Your task to perform on an android device: check google app version Image 0: 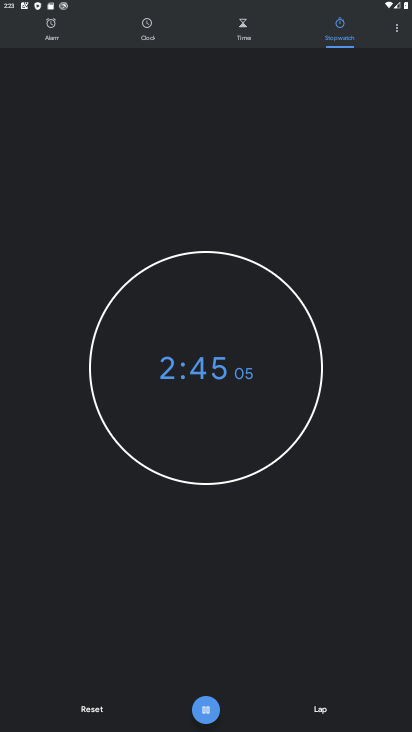
Step 0: press home button
Your task to perform on an android device: check google app version Image 1: 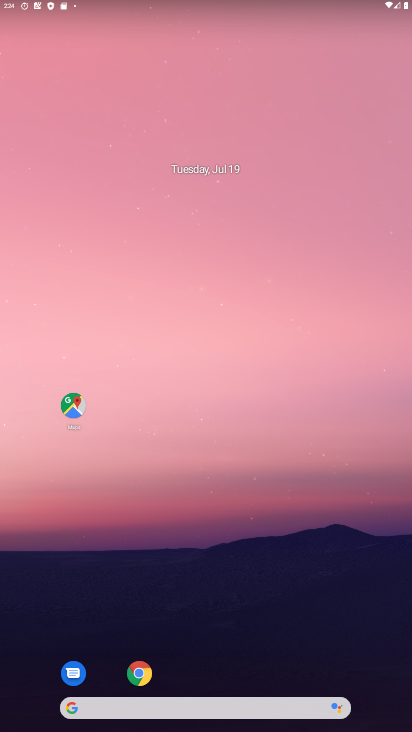
Step 1: click (69, 707)
Your task to perform on an android device: check google app version Image 2: 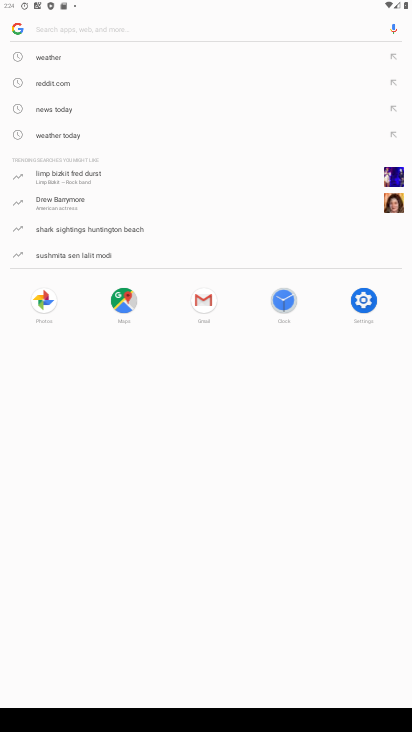
Step 2: click (16, 25)
Your task to perform on an android device: check google app version Image 3: 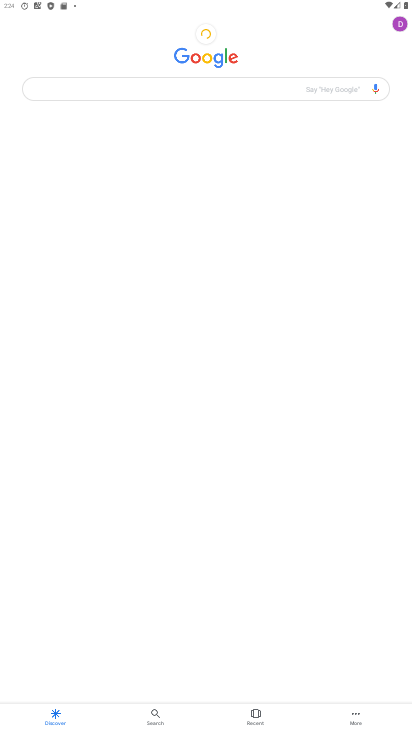
Step 3: click (357, 714)
Your task to perform on an android device: check google app version Image 4: 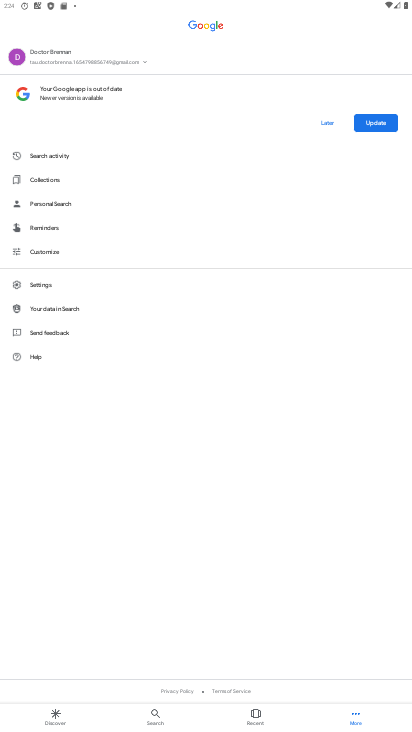
Step 4: click (47, 286)
Your task to perform on an android device: check google app version Image 5: 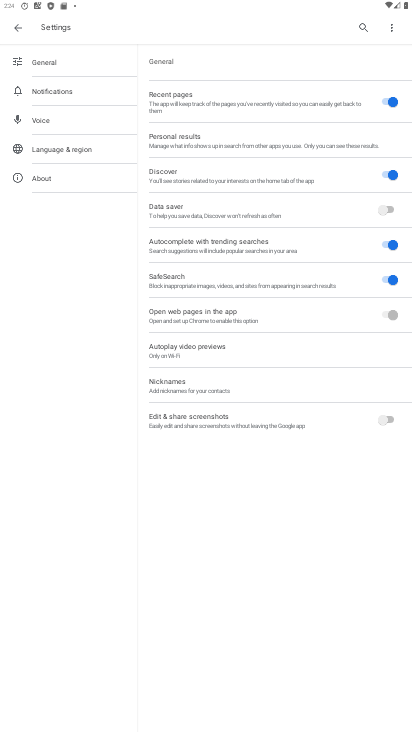
Step 5: click (57, 181)
Your task to perform on an android device: check google app version Image 6: 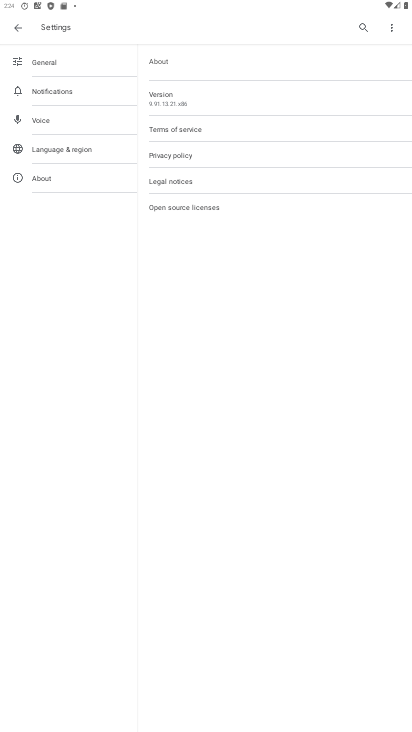
Step 6: task complete